Your task to perform on an android device: delete location history Image 0: 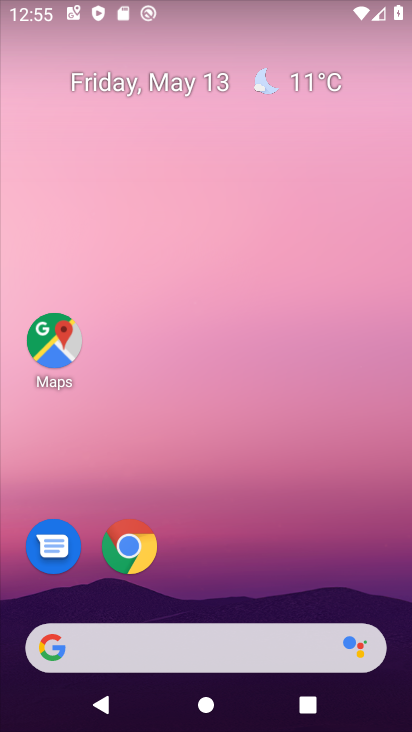
Step 0: drag from (216, 543) to (257, 225)
Your task to perform on an android device: delete location history Image 1: 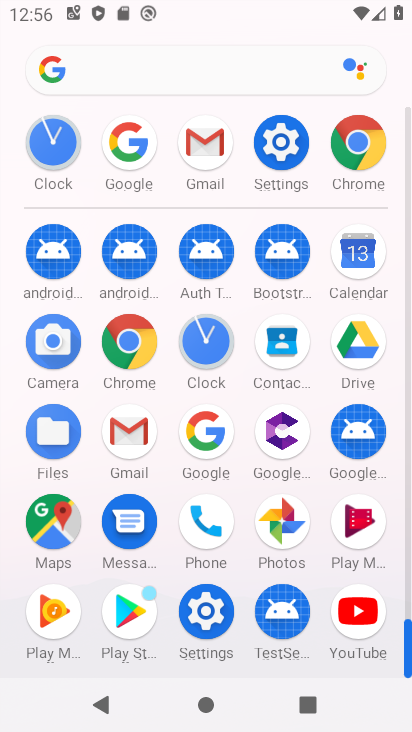
Step 1: click (288, 166)
Your task to perform on an android device: delete location history Image 2: 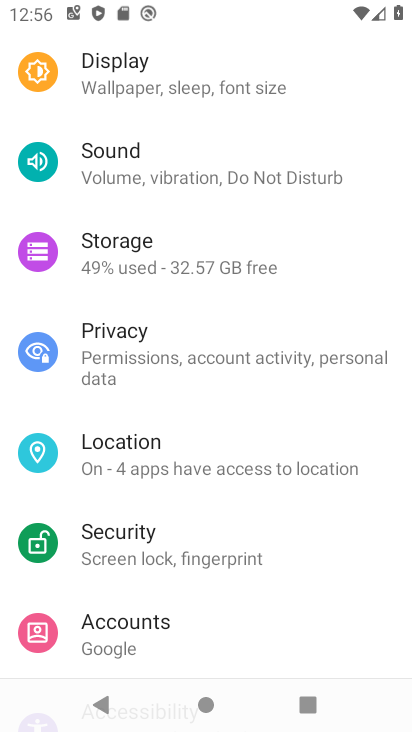
Step 2: drag from (220, 542) to (282, 311)
Your task to perform on an android device: delete location history Image 3: 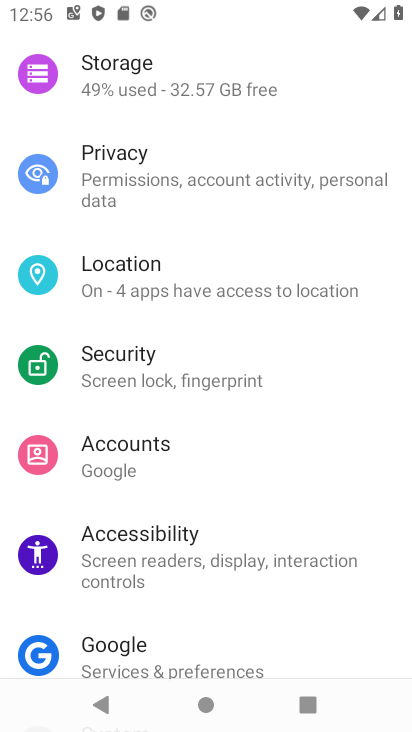
Step 3: drag from (195, 535) to (219, 337)
Your task to perform on an android device: delete location history Image 4: 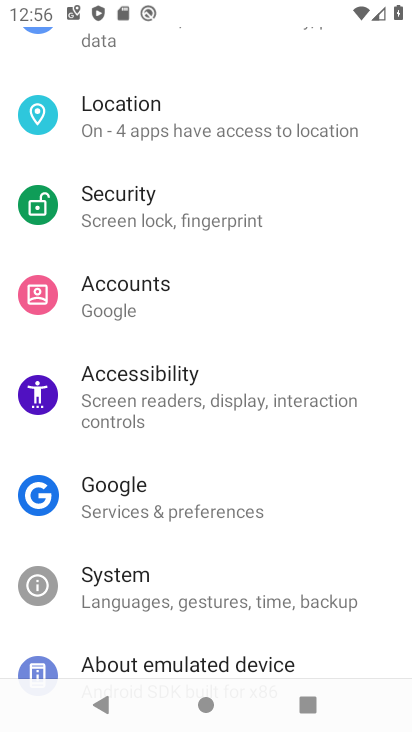
Step 4: click (194, 131)
Your task to perform on an android device: delete location history Image 5: 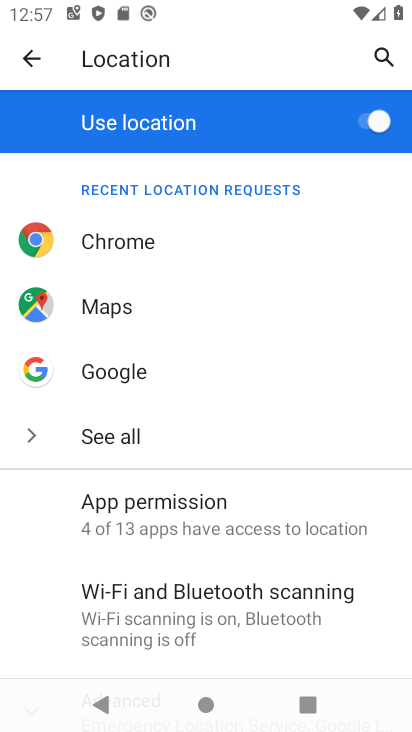
Step 5: drag from (147, 508) to (178, 321)
Your task to perform on an android device: delete location history Image 6: 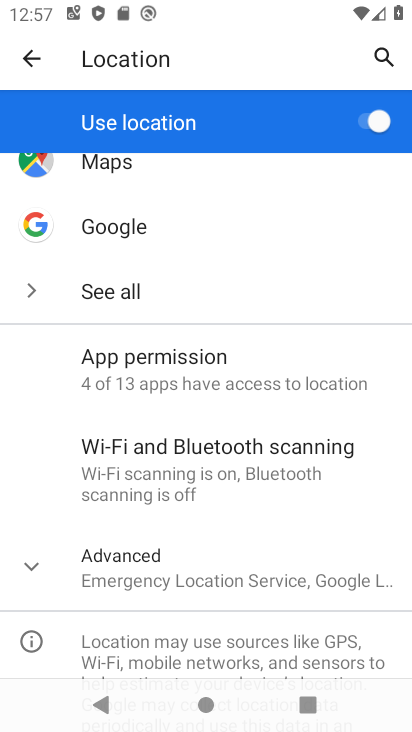
Step 6: click (149, 574)
Your task to perform on an android device: delete location history Image 7: 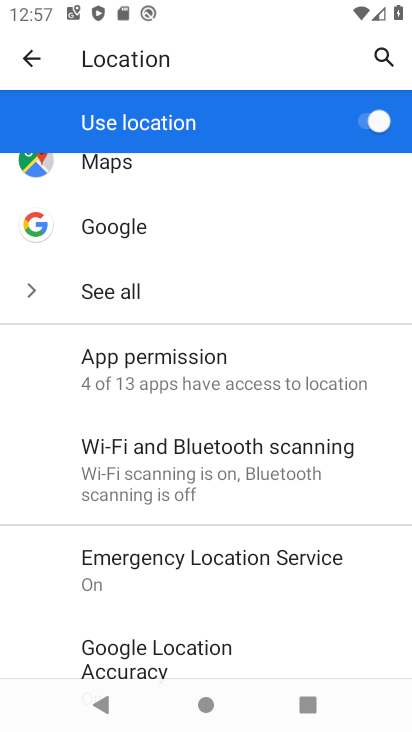
Step 7: drag from (192, 596) to (207, 320)
Your task to perform on an android device: delete location history Image 8: 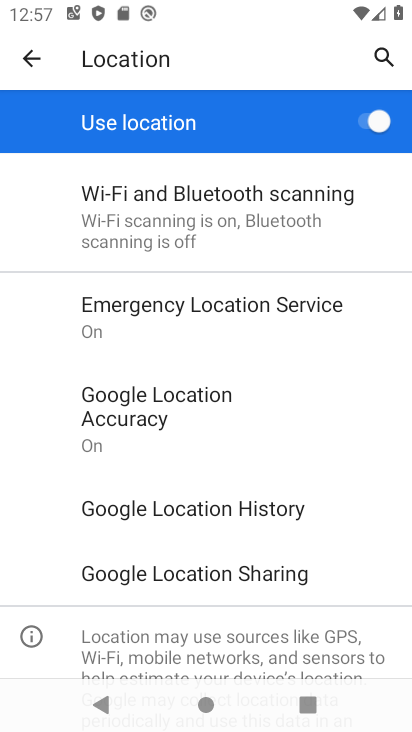
Step 8: click (260, 525)
Your task to perform on an android device: delete location history Image 9: 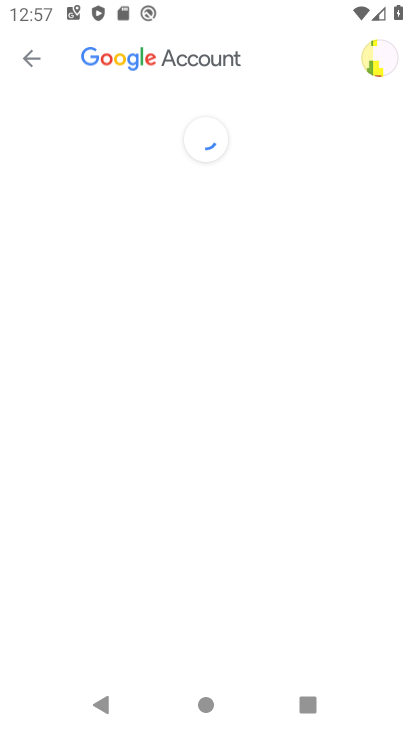
Step 9: drag from (203, 520) to (157, 180)
Your task to perform on an android device: delete location history Image 10: 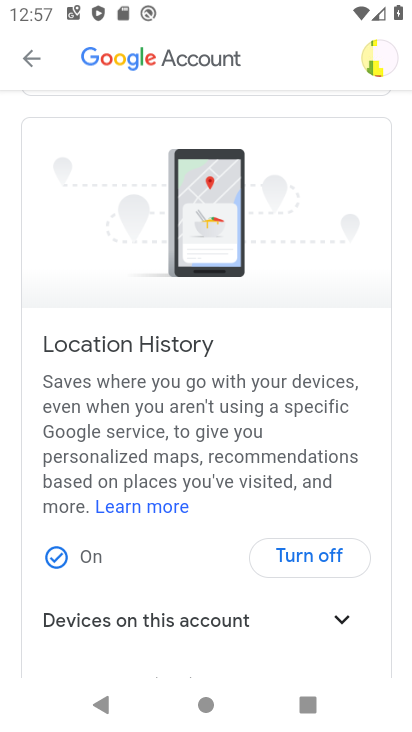
Step 10: drag from (216, 571) to (158, 462)
Your task to perform on an android device: delete location history Image 11: 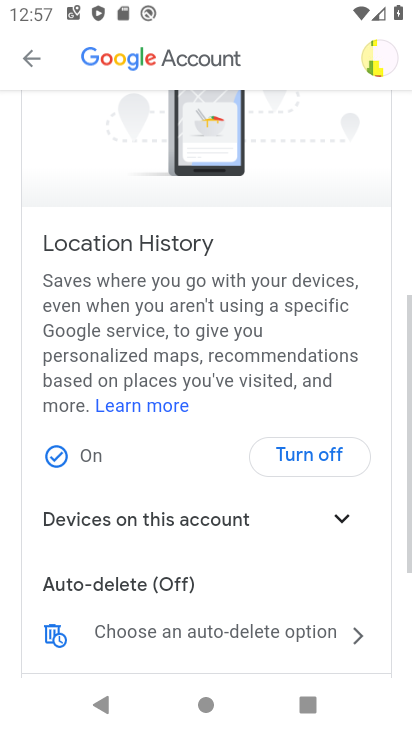
Step 11: drag from (193, 553) to (163, 458)
Your task to perform on an android device: delete location history Image 12: 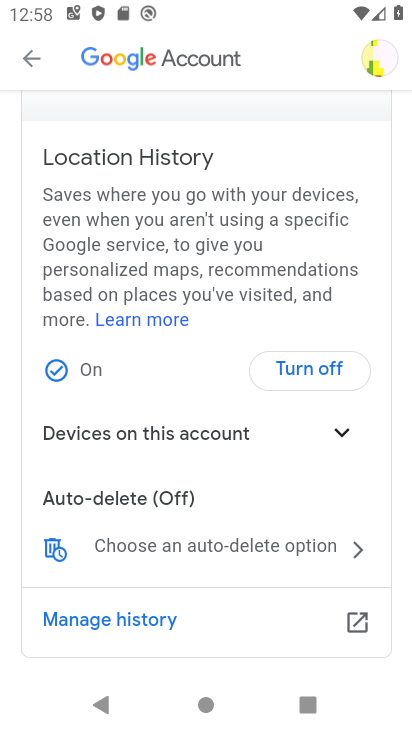
Step 12: click (301, 551)
Your task to perform on an android device: delete location history Image 13: 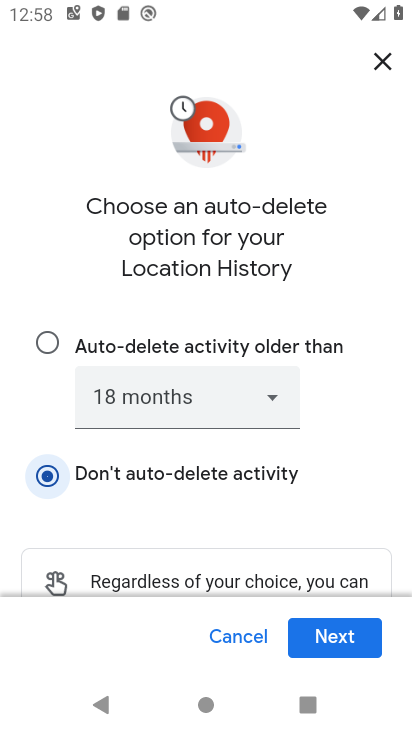
Step 13: click (344, 652)
Your task to perform on an android device: delete location history Image 14: 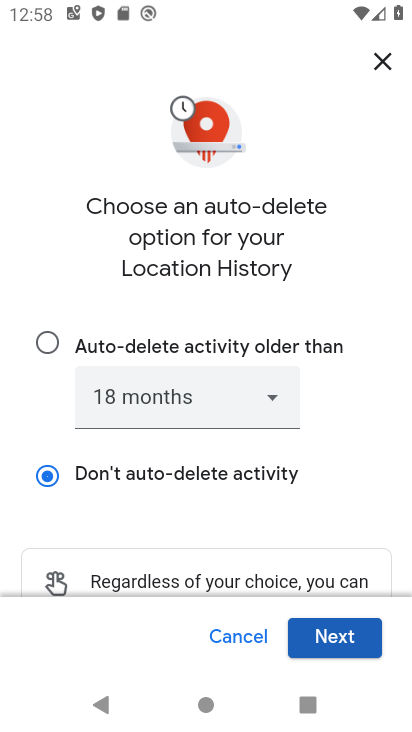
Step 14: click (359, 642)
Your task to perform on an android device: delete location history Image 15: 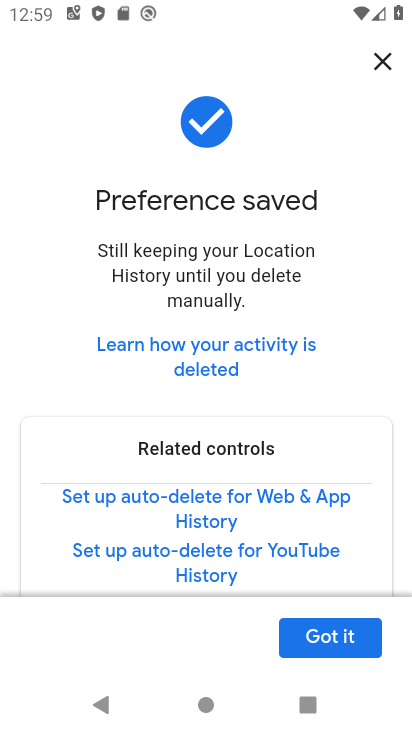
Step 15: click (352, 647)
Your task to perform on an android device: delete location history Image 16: 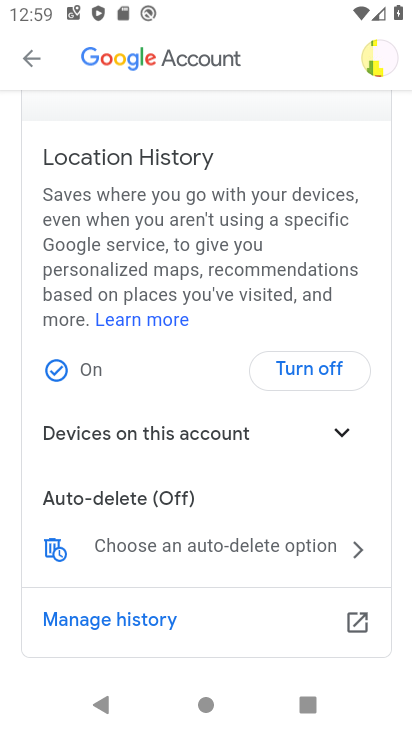
Step 16: task complete